Your task to perform on an android device: Open location settings Image 0: 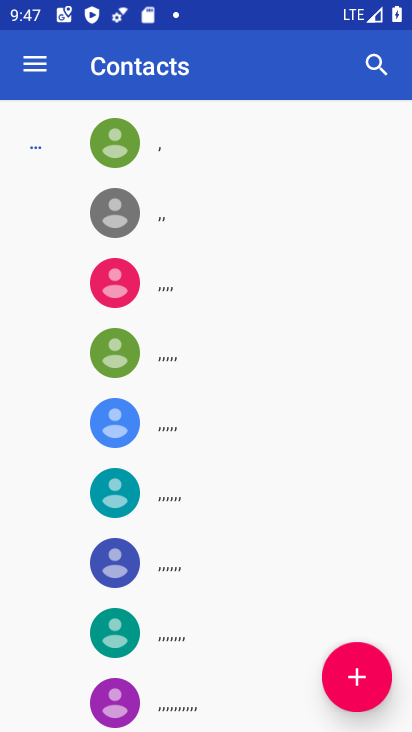
Step 0: press home button
Your task to perform on an android device: Open location settings Image 1: 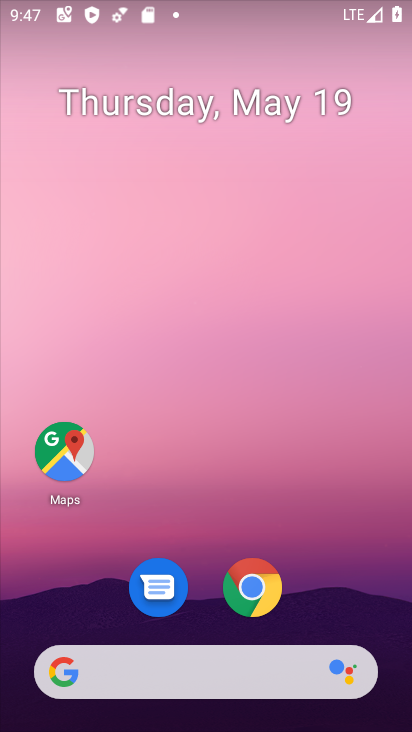
Step 1: drag from (233, 564) to (200, 84)
Your task to perform on an android device: Open location settings Image 2: 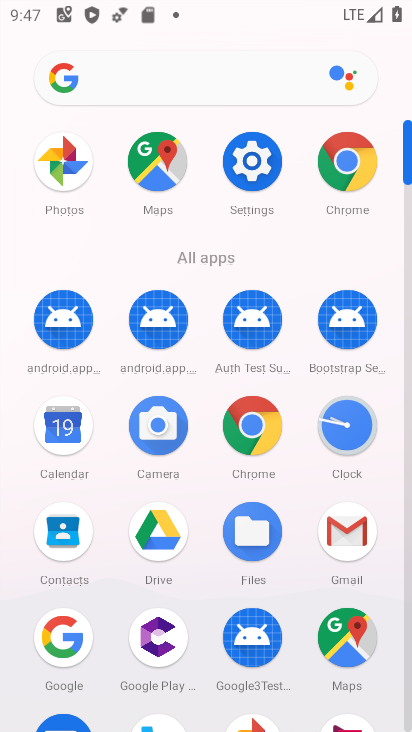
Step 2: click (246, 148)
Your task to perform on an android device: Open location settings Image 3: 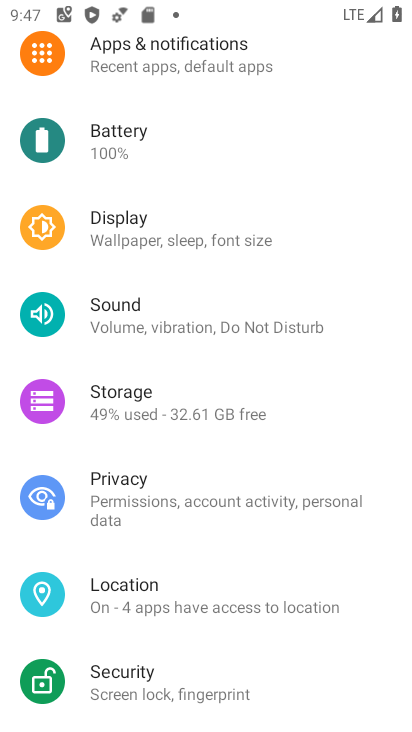
Step 3: click (131, 611)
Your task to perform on an android device: Open location settings Image 4: 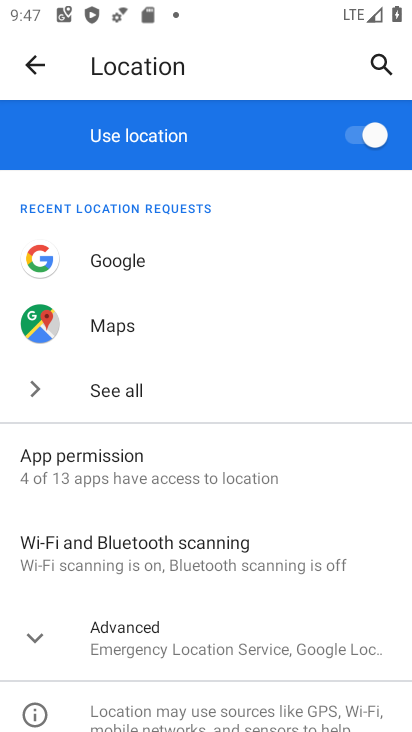
Step 4: task complete